Your task to perform on an android device: Open Chrome and go to settings Image 0: 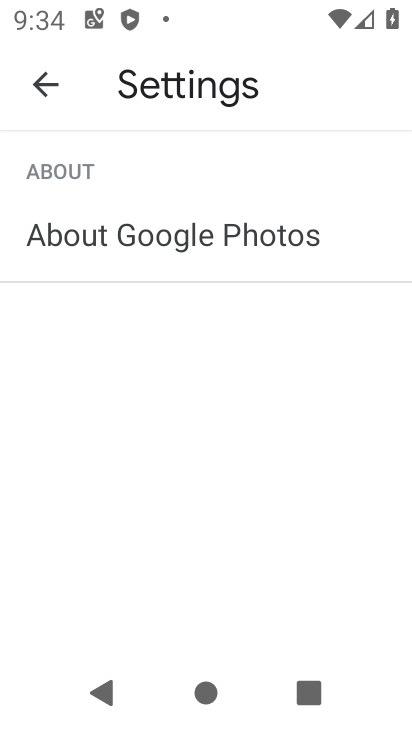
Step 0: press home button
Your task to perform on an android device: Open Chrome and go to settings Image 1: 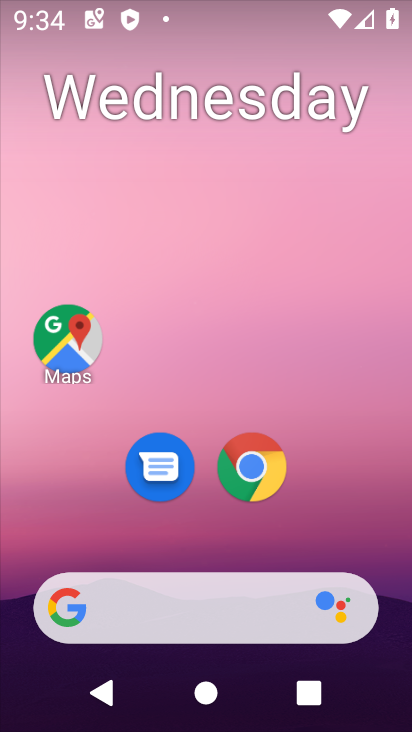
Step 1: drag from (247, 547) to (247, 37)
Your task to perform on an android device: Open Chrome and go to settings Image 2: 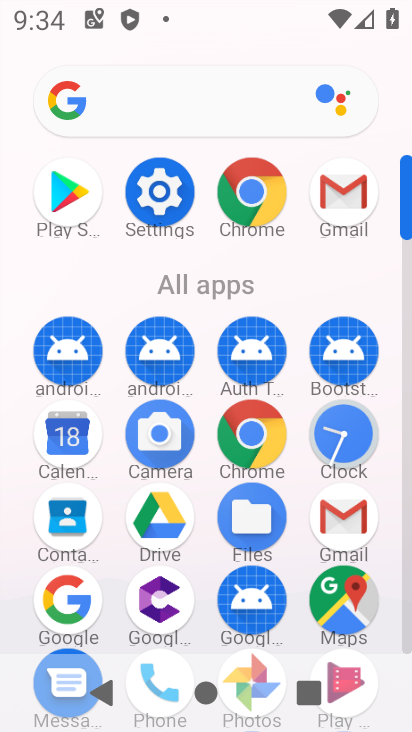
Step 2: click (263, 185)
Your task to perform on an android device: Open Chrome and go to settings Image 3: 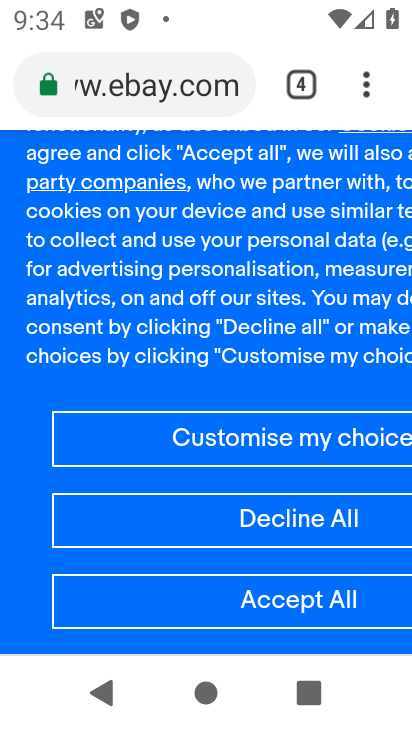
Step 3: click (371, 89)
Your task to perform on an android device: Open Chrome and go to settings Image 4: 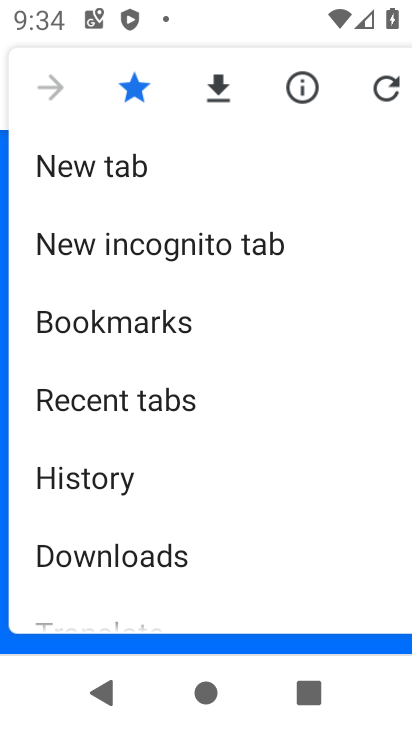
Step 4: drag from (216, 571) to (224, 101)
Your task to perform on an android device: Open Chrome and go to settings Image 5: 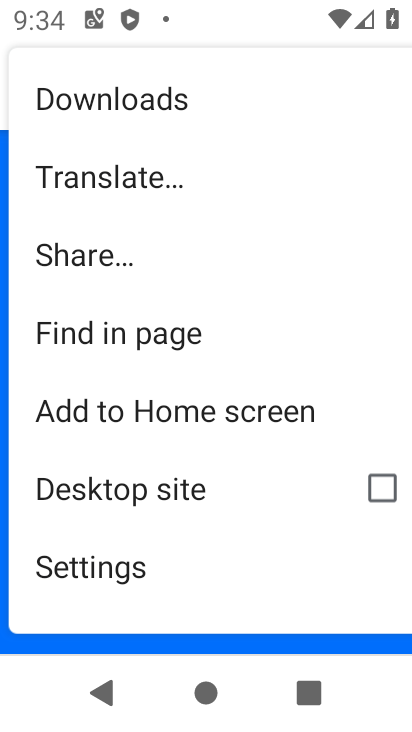
Step 5: click (189, 563)
Your task to perform on an android device: Open Chrome and go to settings Image 6: 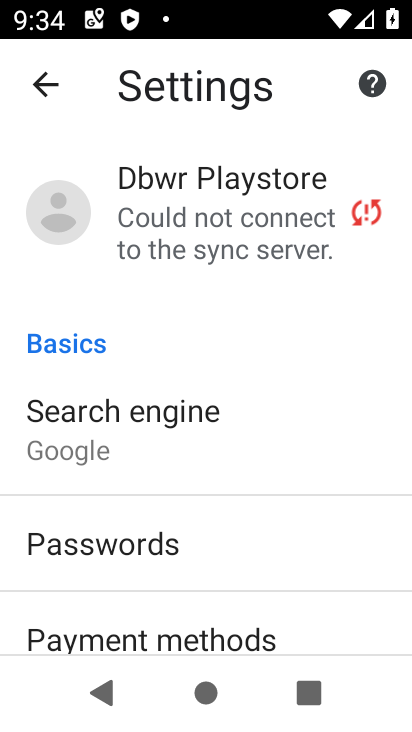
Step 6: task complete